Your task to perform on an android device: Open eBay Image 0: 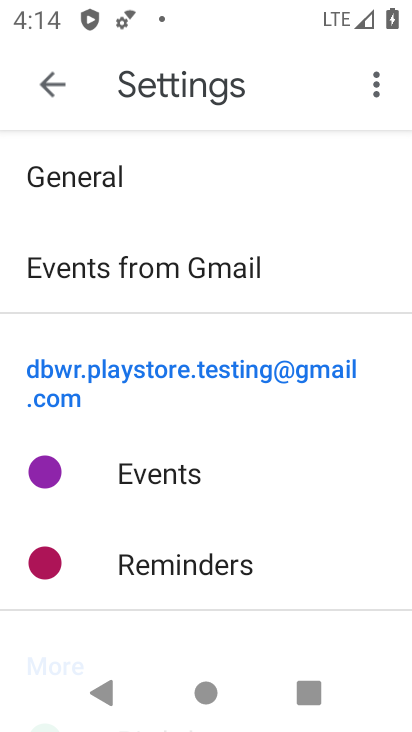
Step 0: press home button
Your task to perform on an android device: Open eBay Image 1: 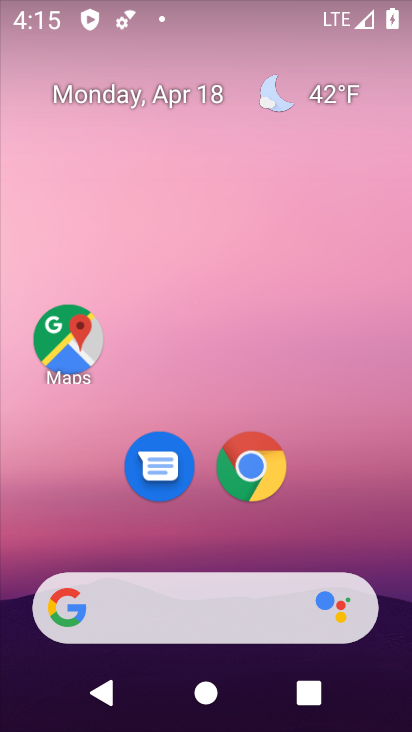
Step 1: click (249, 467)
Your task to perform on an android device: Open eBay Image 2: 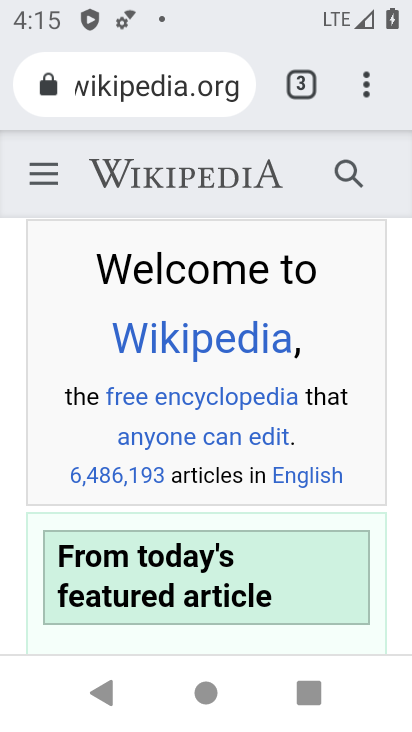
Step 2: click (137, 80)
Your task to perform on an android device: Open eBay Image 3: 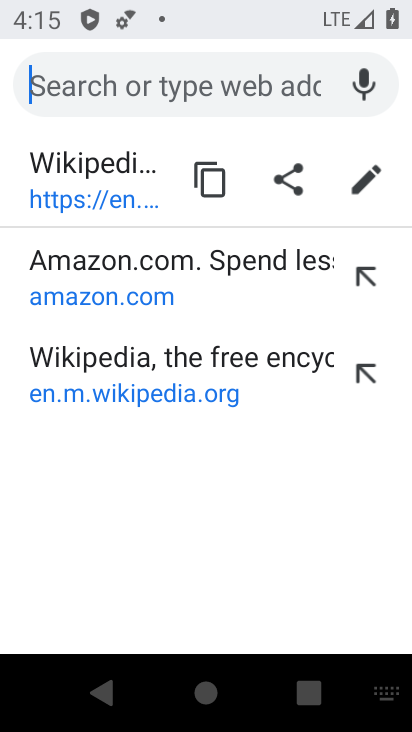
Step 3: type "ebay"
Your task to perform on an android device: Open eBay Image 4: 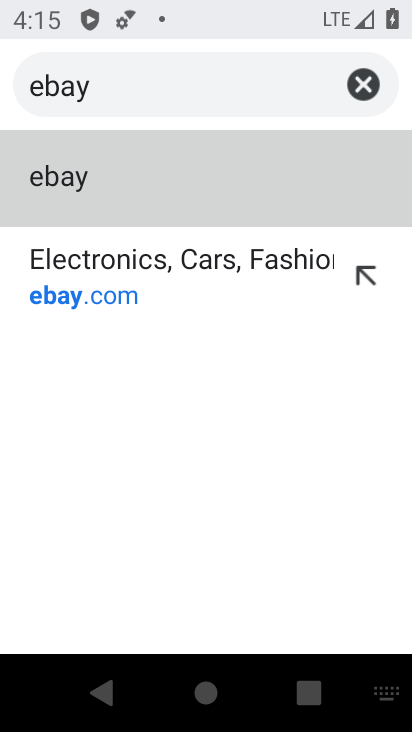
Step 4: click (75, 276)
Your task to perform on an android device: Open eBay Image 5: 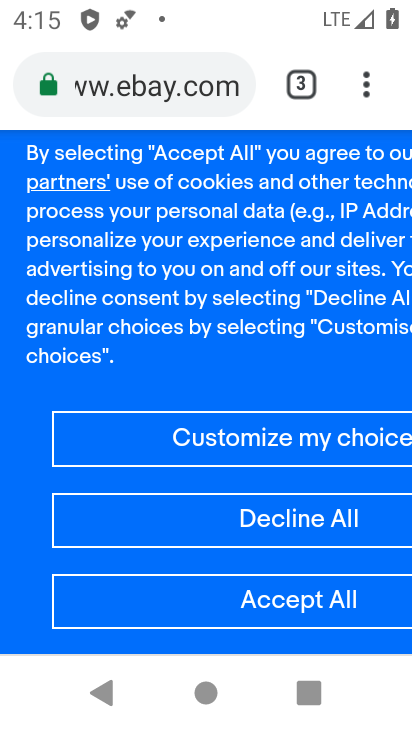
Step 5: task complete